Your task to perform on an android device: set the stopwatch Image 0: 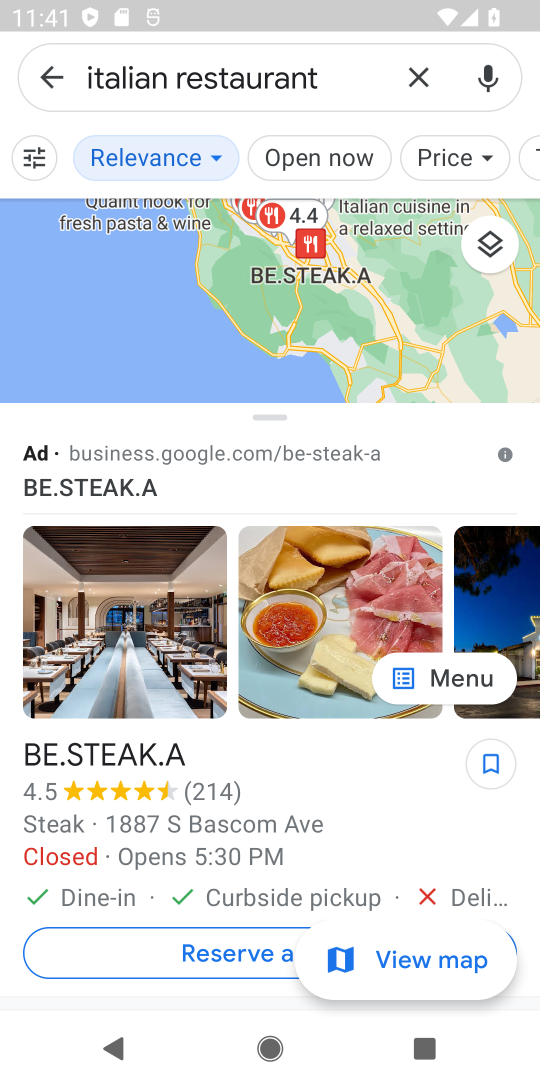
Step 0: press home button
Your task to perform on an android device: set the stopwatch Image 1: 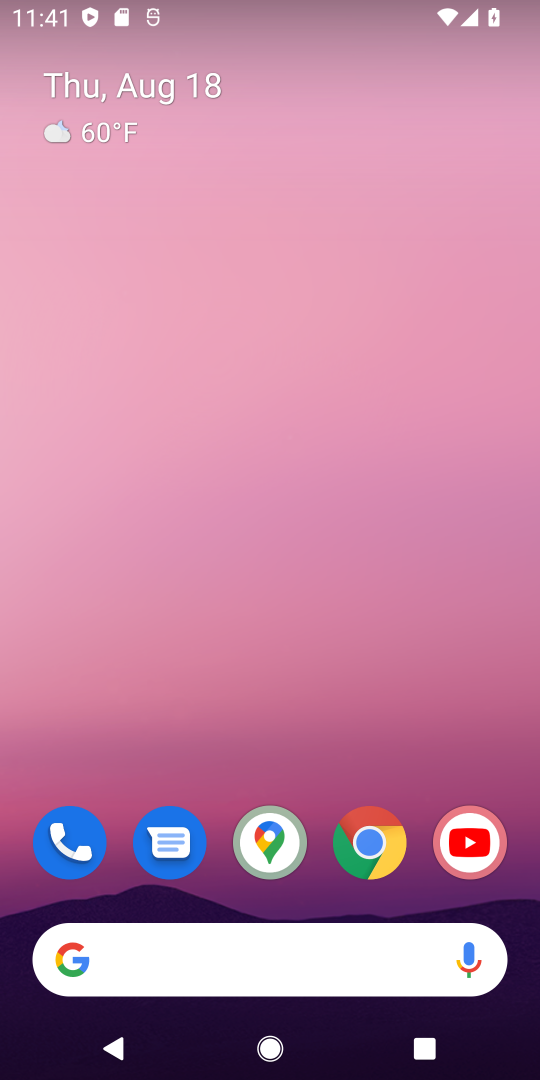
Step 1: click (347, 239)
Your task to perform on an android device: set the stopwatch Image 2: 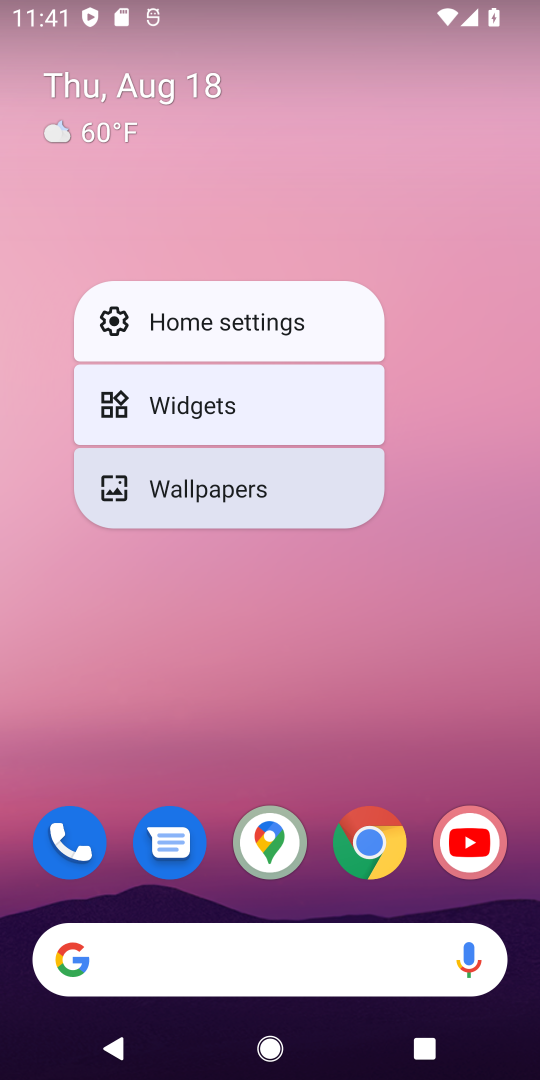
Step 2: drag from (294, 890) to (392, 96)
Your task to perform on an android device: set the stopwatch Image 3: 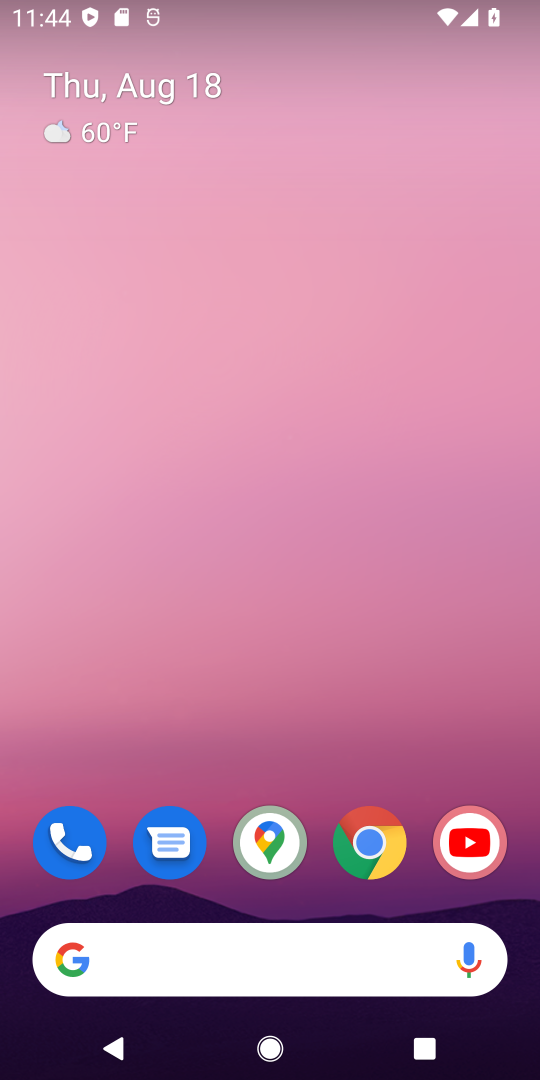
Step 3: drag from (229, 885) to (318, 510)
Your task to perform on an android device: set the stopwatch Image 4: 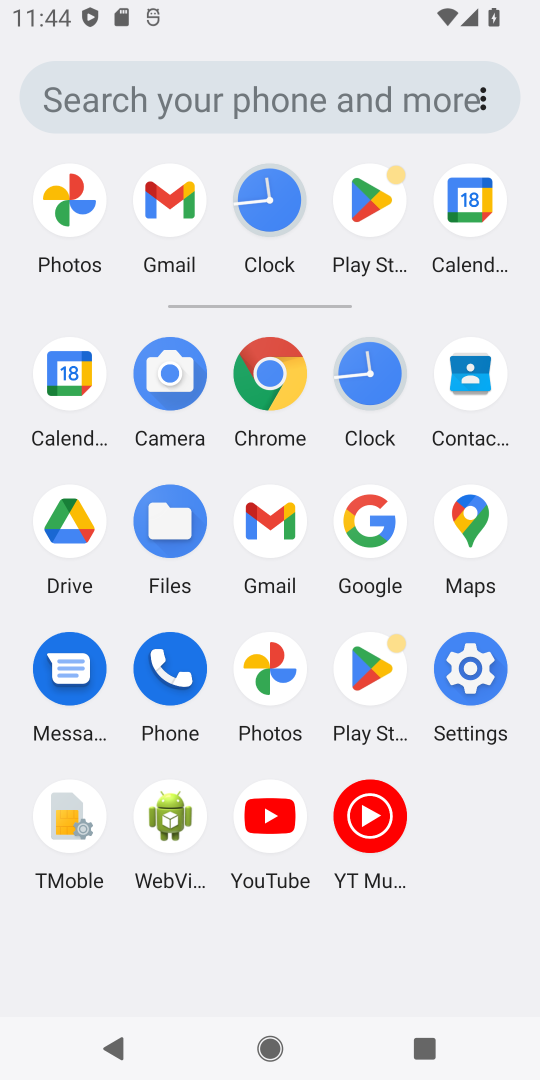
Step 4: click (367, 346)
Your task to perform on an android device: set the stopwatch Image 5: 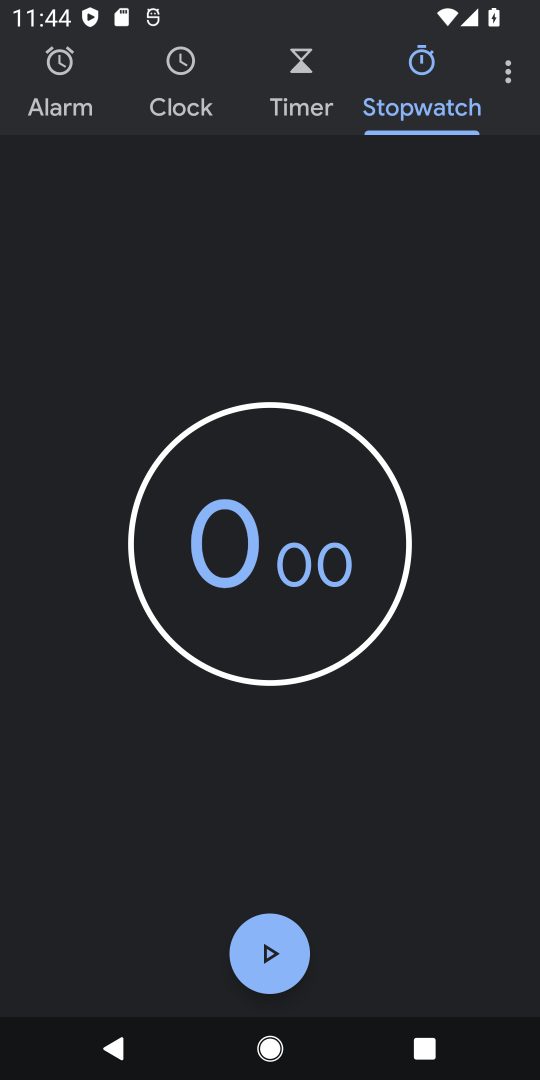
Step 5: click (273, 961)
Your task to perform on an android device: set the stopwatch Image 6: 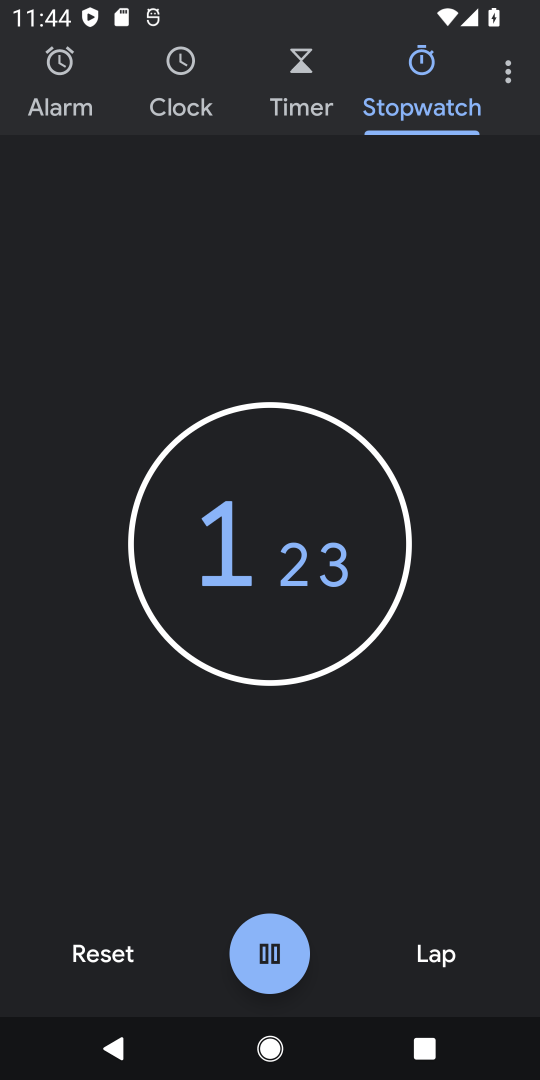
Step 6: task complete